Your task to perform on an android device: clear history in the chrome app Image 0: 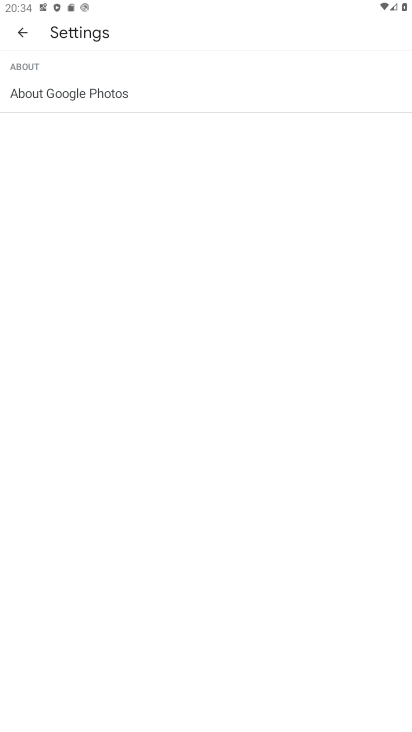
Step 0: click (22, 33)
Your task to perform on an android device: clear history in the chrome app Image 1: 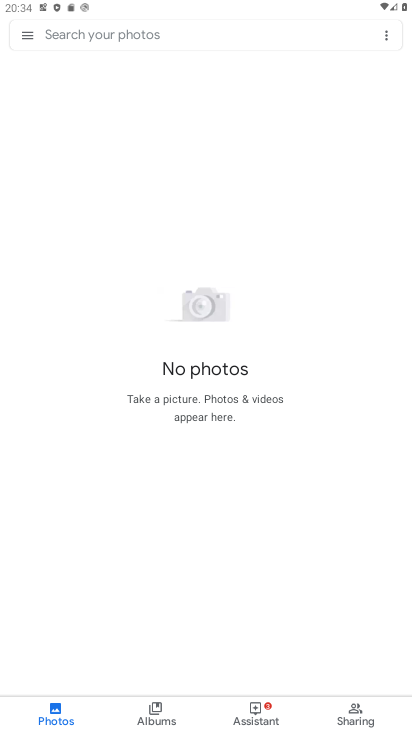
Step 1: click (25, 35)
Your task to perform on an android device: clear history in the chrome app Image 2: 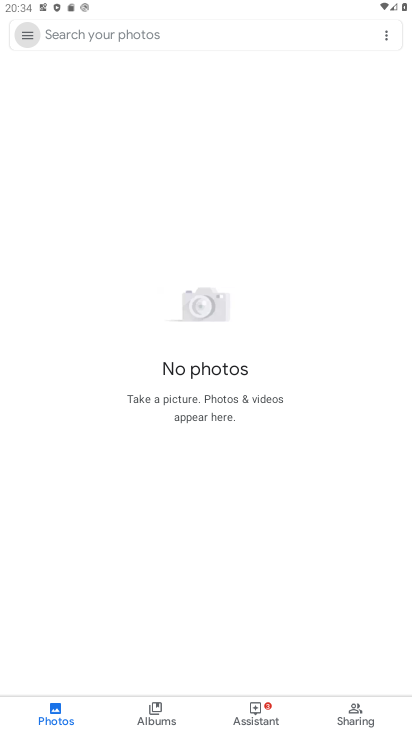
Step 2: click (27, 33)
Your task to perform on an android device: clear history in the chrome app Image 3: 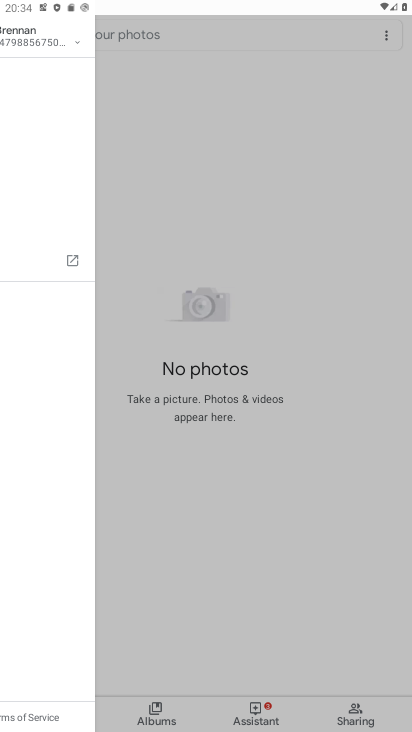
Step 3: click (28, 33)
Your task to perform on an android device: clear history in the chrome app Image 4: 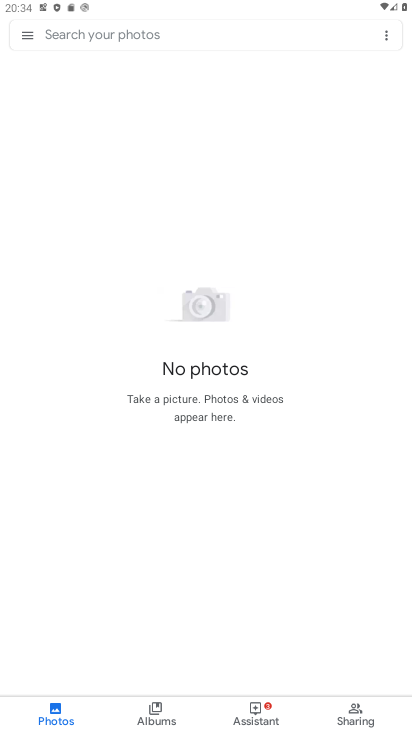
Step 4: press home button
Your task to perform on an android device: clear history in the chrome app Image 5: 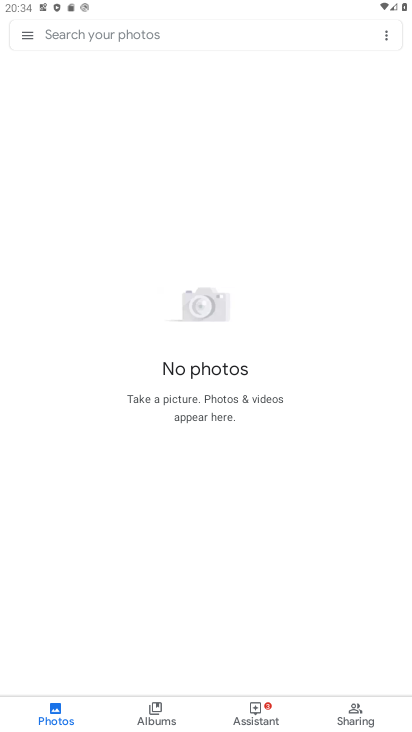
Step 5: press home button
Your task to perform on an android device: clear history in the chrome app Image 6: 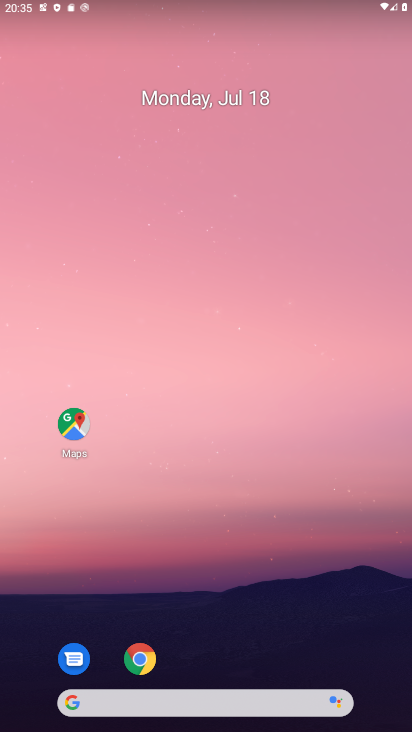
Step 6: drag from (221, 674) to (135, 234)
Your task to perform on an android device: clear history in the chrome app Image 7: 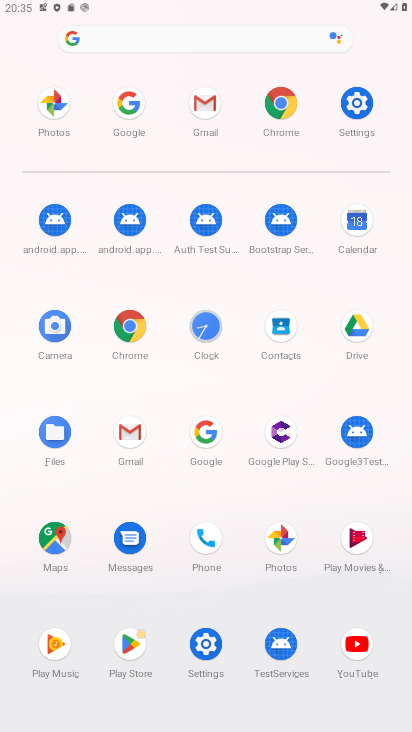
Step 7: click (277, 98)
Your task to perform on an android device: clear history in the chrome app Image 8: 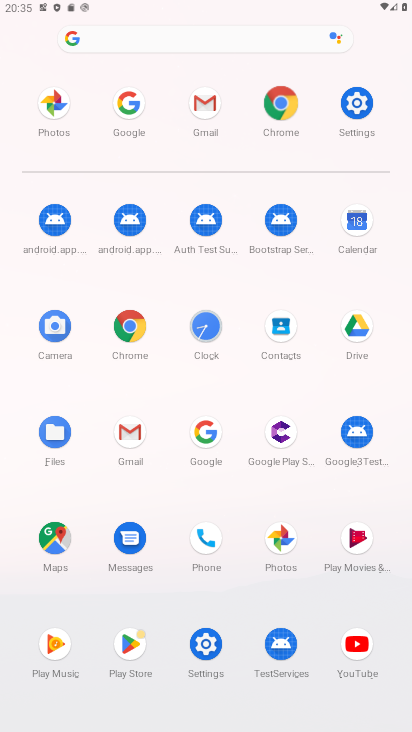
Step 8: click (277, 96)
Your task to perform on an android device: clear history in the chrome app Image 9: 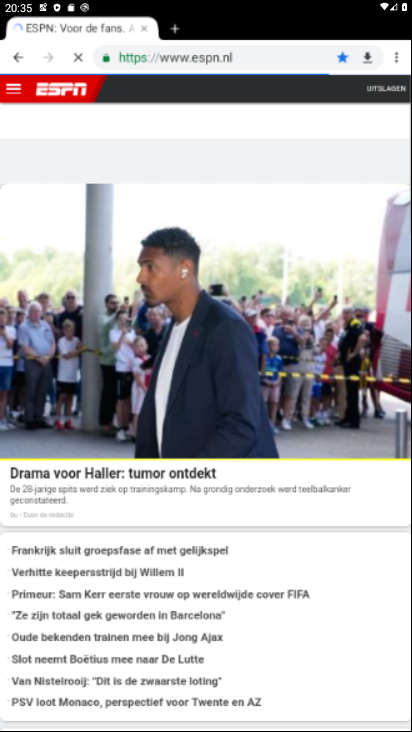
Step 9: click (281, 93)
Your task to perform on an android device: clear history in the chrome app Image 10: 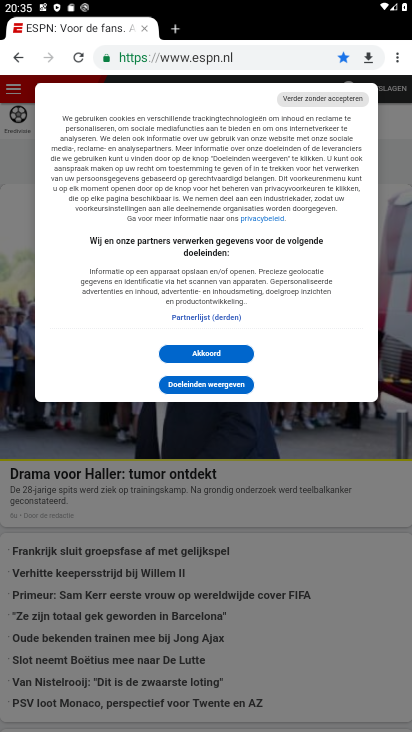
Step 10: drag from (399, 56) to (283, 383)
Your task to perform on an android device: clear history in the chrome app Image 11: 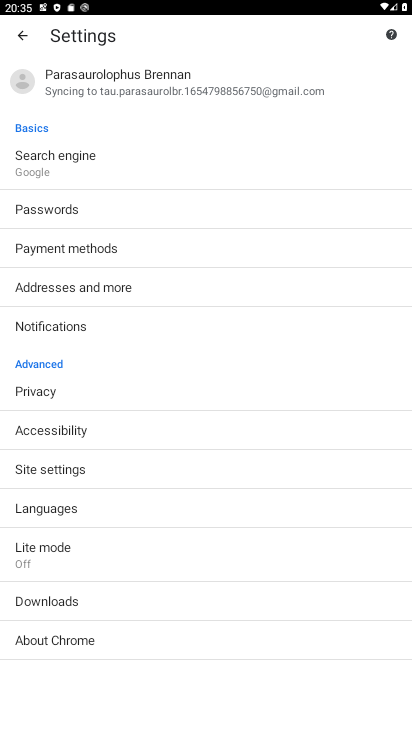
Step 11: click (21, 37)
Your task to perform on an android device: clear history in the chrome app Image 12: 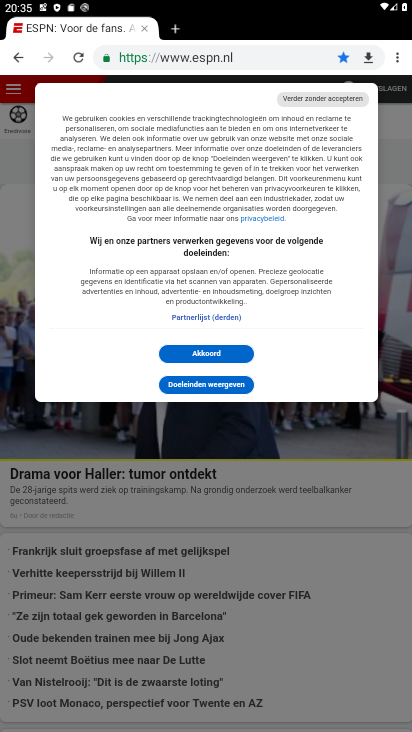
Step 12: click (394, 55)
Your task to perform on an android device: clear history in the chrome app Image 13: 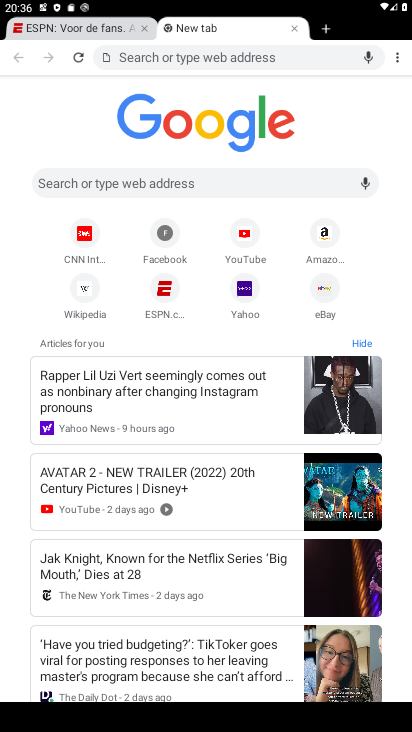
Step 13: drag from (395, 65) to (277, 172)
Your task to perform on an android device: clear history in the chrome app Image 14: 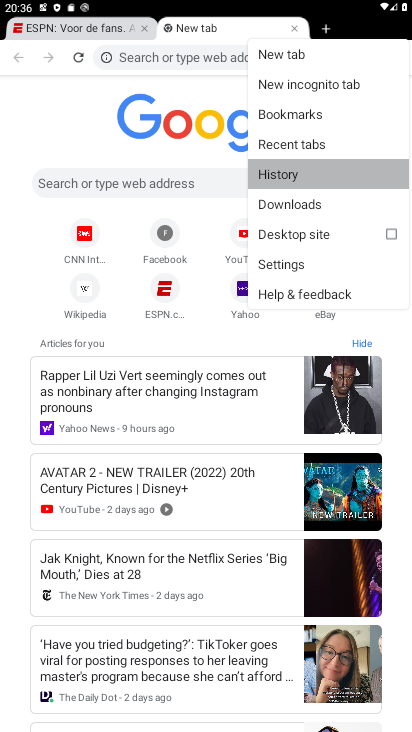
Step 14: click (277, 170)
Your task to perform on an android device: clear history in the chrome app Image 15: 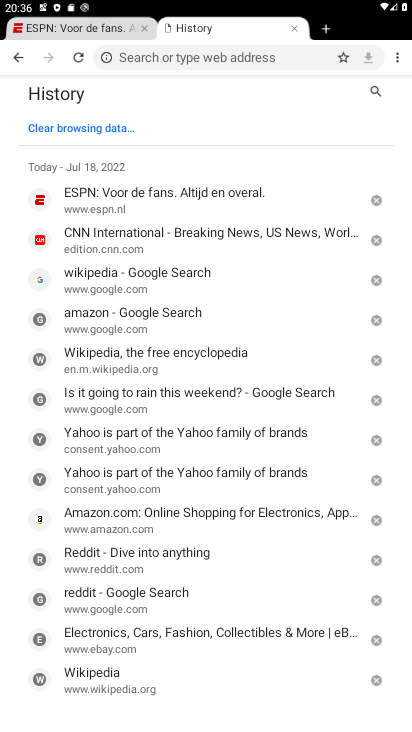
Step 15: task complete